Your task to perform on an android device: Open the calendar app, open the side menu, and click the "Day" option Image 0: 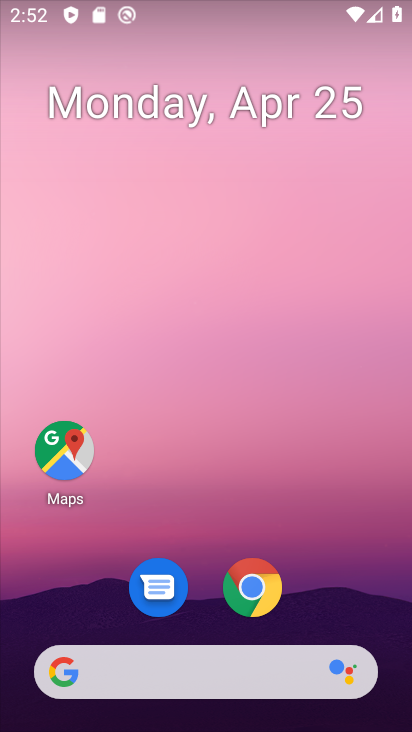
Step 0: drag from (203, 605) to (209, 96)
Your task to perform on an android device: Open the calendar app, open the side menu, and click the "Day" option Image 1: 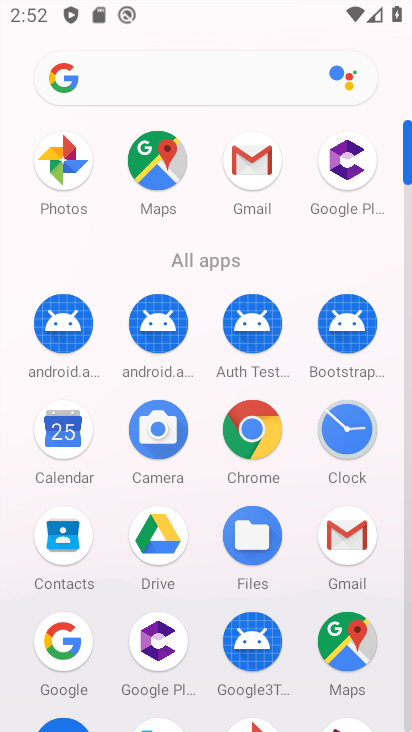
Step 1: click (62, 435)
Your task to perform on an android device: Open the calendar app, open the side menu, and click the "Day" option Image 2: 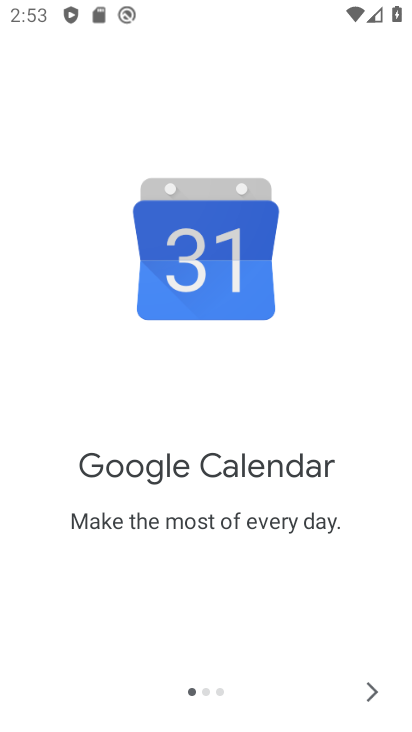
Step 2: click (376, 688)
Your task to perform on an android device: Open the calendar app, open the side menu, and click the "Day" option Image 3: 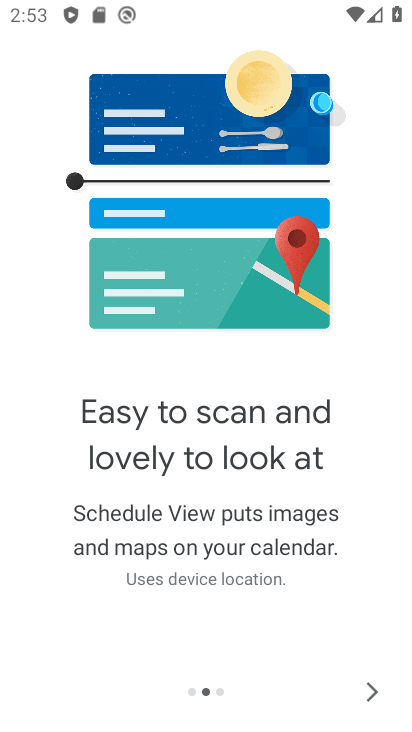
Step 3: click (375, 692)
Your task to perform on an android device: Open the calendar app, open the side menu, and click the "Day" option Image 4: 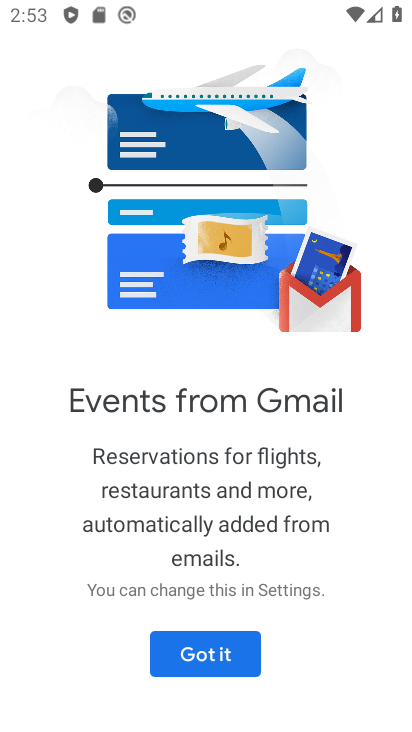
Step 4: click (205, 653)
Your task to perform on an android device: Open the calendar app, open the side menu, and click the "Day" option Image 5: 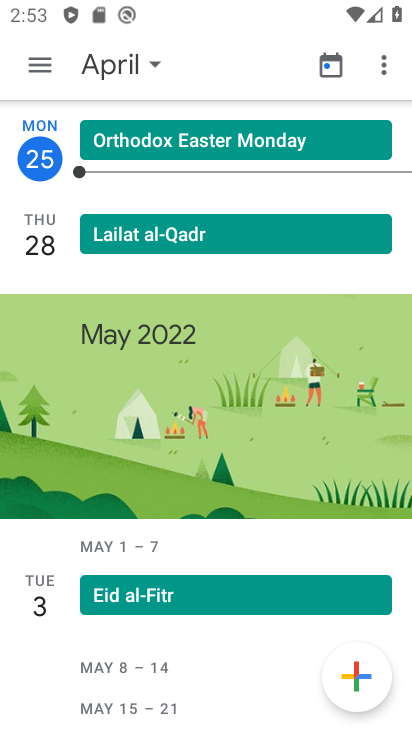
Step 5: click (30, 61)
Your task to perform on an android device: Open the calendar app, open the side menu, and click the "Day" option Image 6: 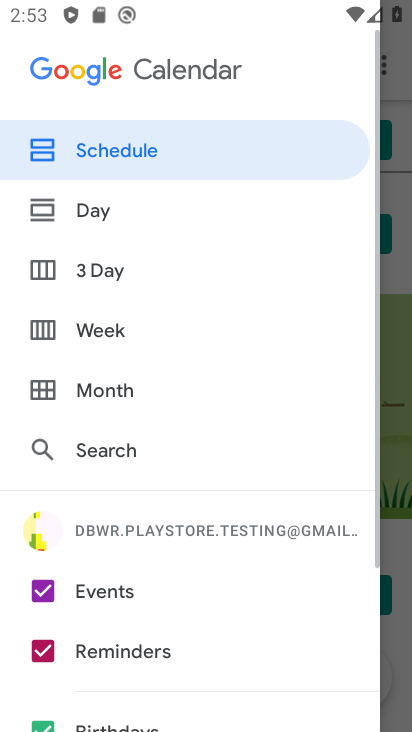
Step 6: click (111, 216)
Your task to perform on an android device: Open the calendar app, open the side menu, and click the "Day" option Image 7: 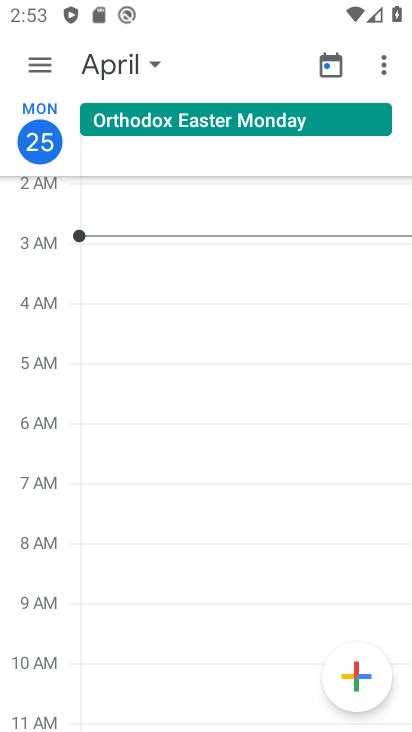
Step 7: task complete